Your task to perform on an android device: Open internet settings Image 0: 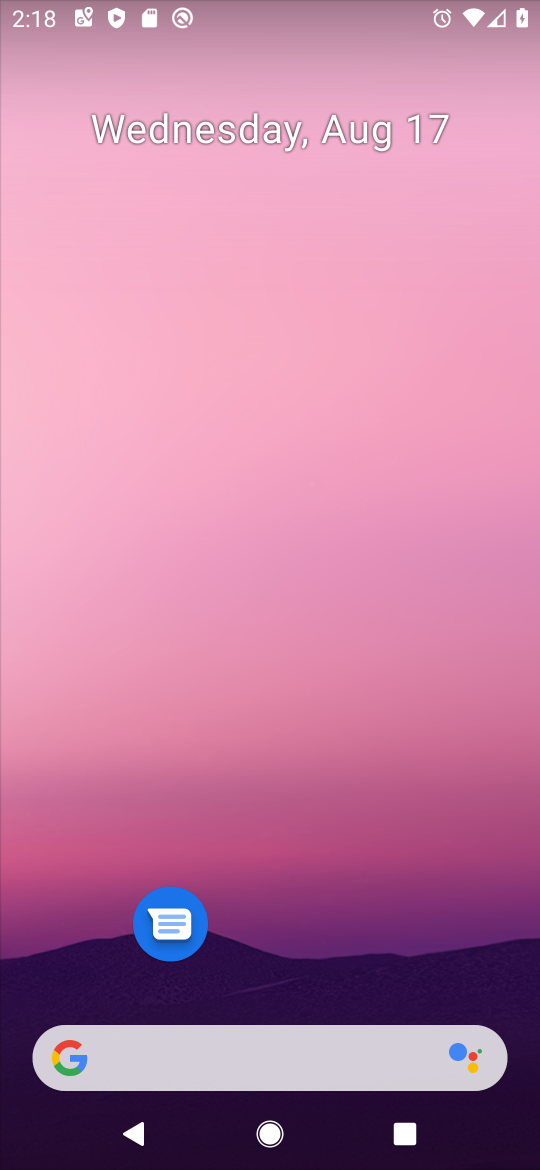
Step 0: drag from (354, 1021) to (227, 183)
Your task to perform on an android device: Open internet settings Image 1: 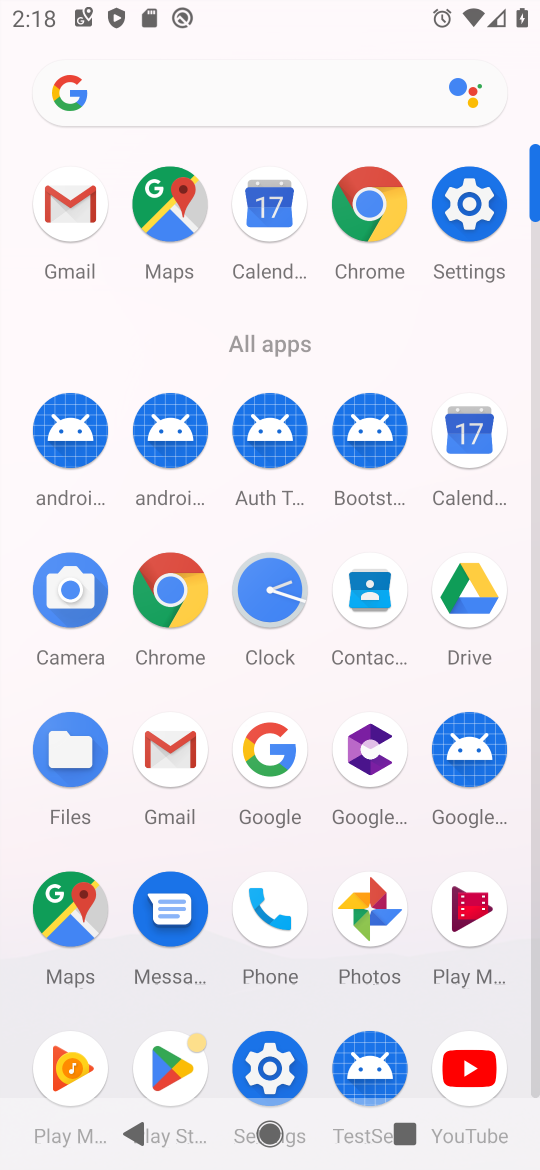
Step 1: click (483, 219)
Your task to perform on an android device: Open internet settings Image 2: 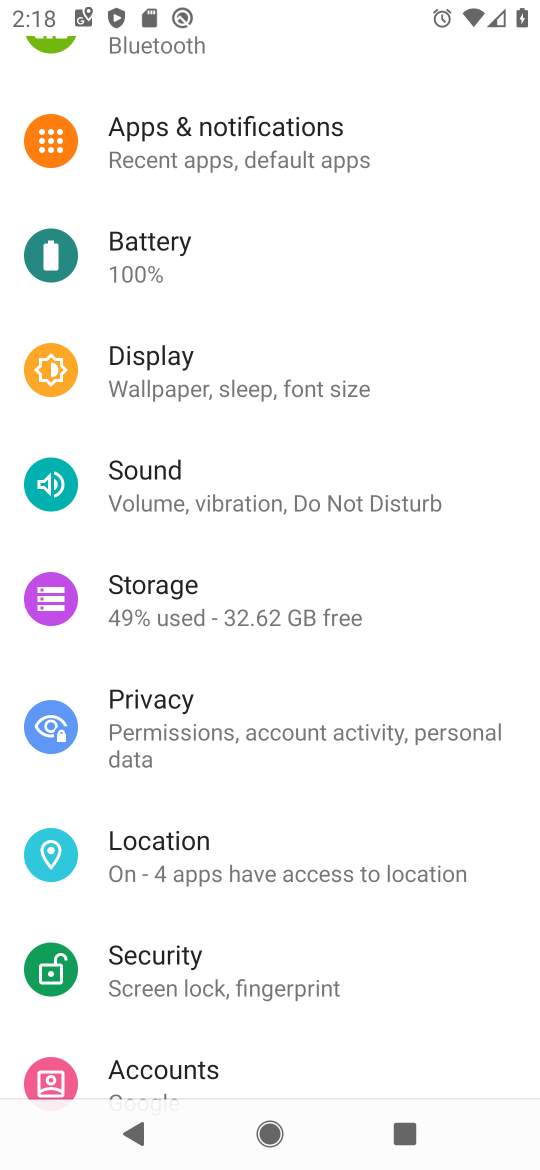
Step 2: drag from (272, 222) to (231, 817)
Your task to perform on an android device: Open internet settings Image 3: 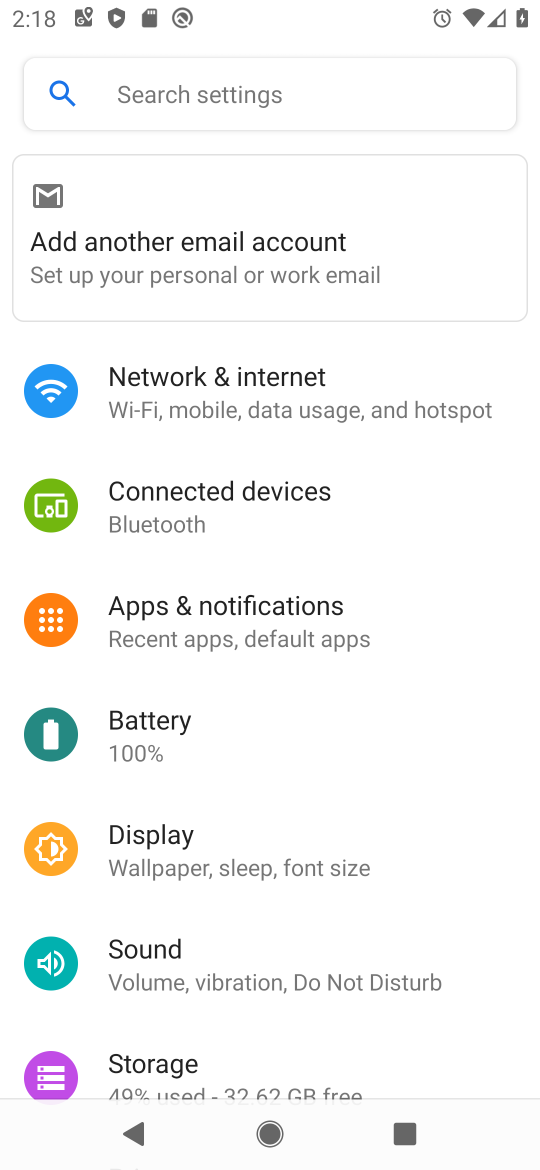
Step 3: click (220, 364)
Your task to perform on an android device: Open internet settings Image 4: 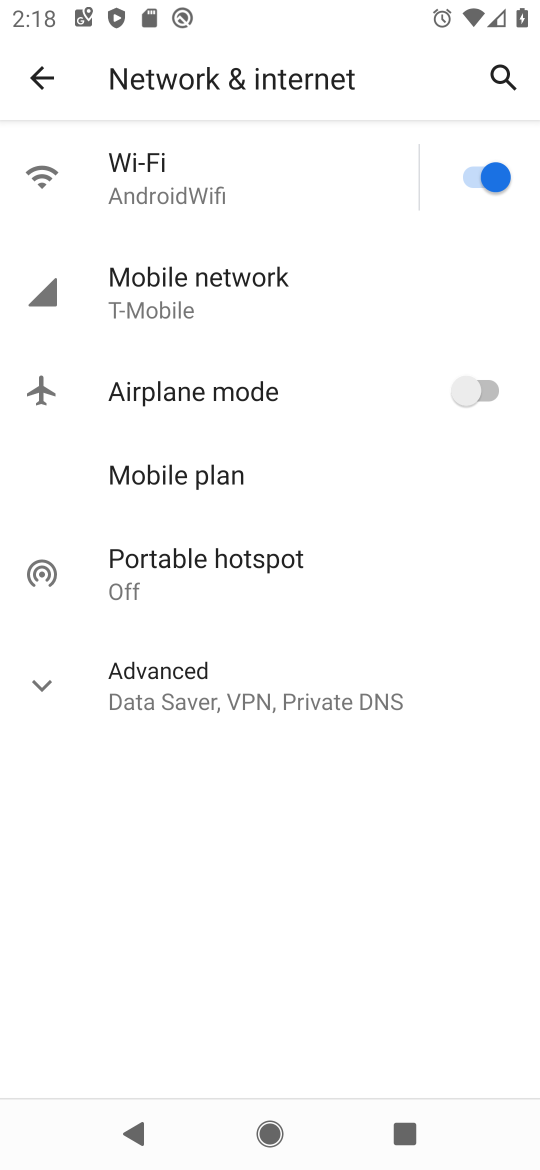
Step 4: click (213, 285)
Your task to perform on an android device: Open internet settings Image 5: 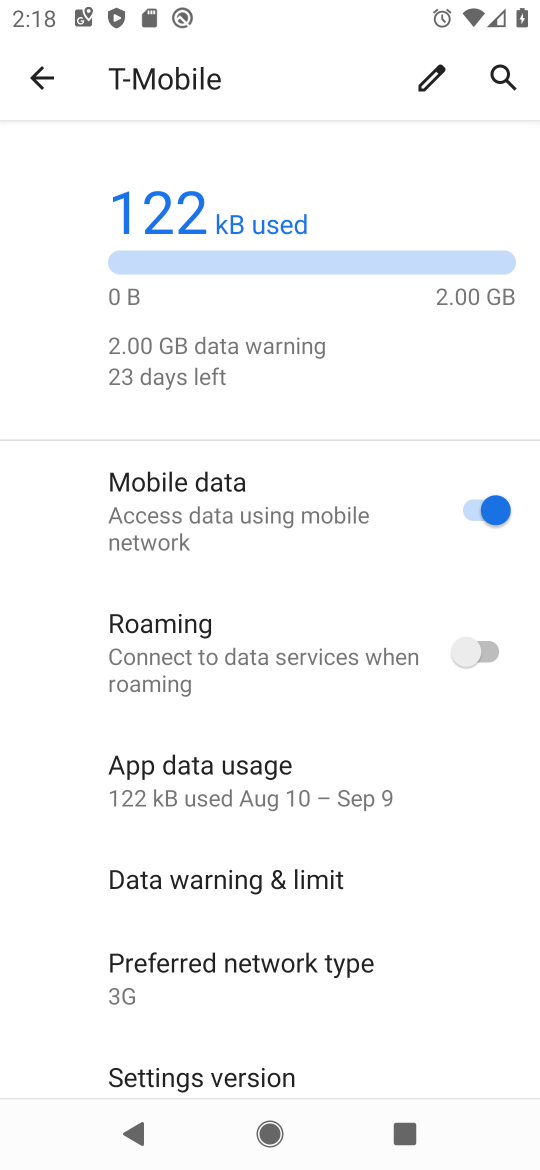
Step 5: task complete